Your task to perform on an android device: Go to wifi settings Image 0: 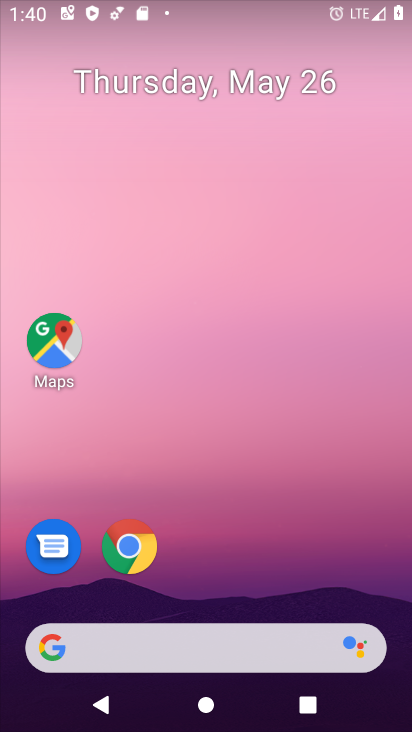
Step 0: drag from (390, 610) to (302, 170)
Your task to perform on an android device: Go to wifi settings Image 1: 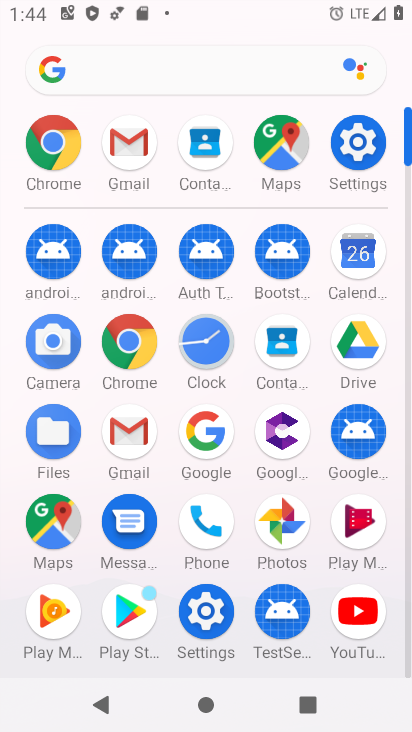
Step 1: click (206, 608)
Your task to perform on an android device: Go to wifi settings Image 2: 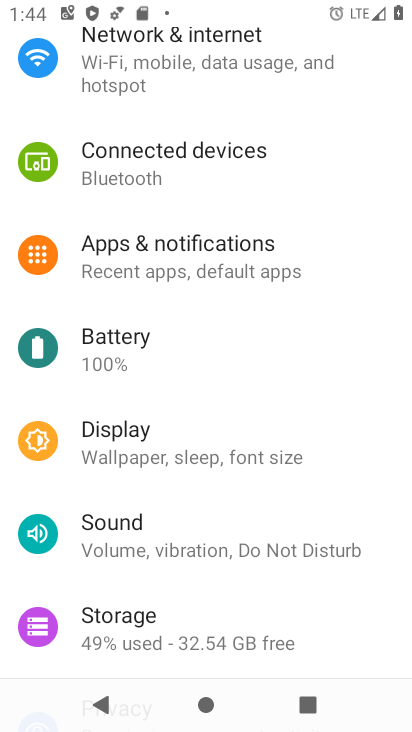
Step 2: drag from (184, 110) to (216, 589)
Your task to perform on an android device: Go to wifi settings Image 3: 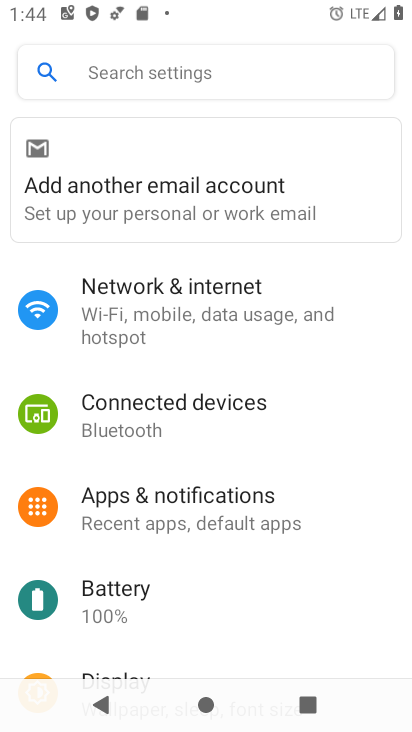
Step 3: click (195, 309)
Your task to perform on an android device: Go to wifi settings Image 4: 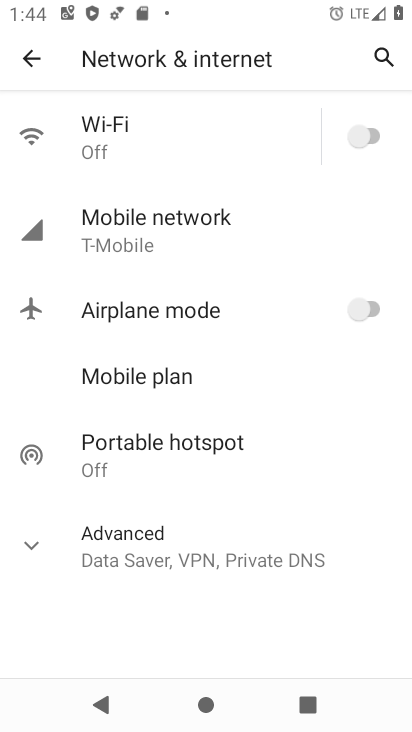
Step 4: click (147, 133)
Your task to perform on an android device: Go to wifi settings Image 5: 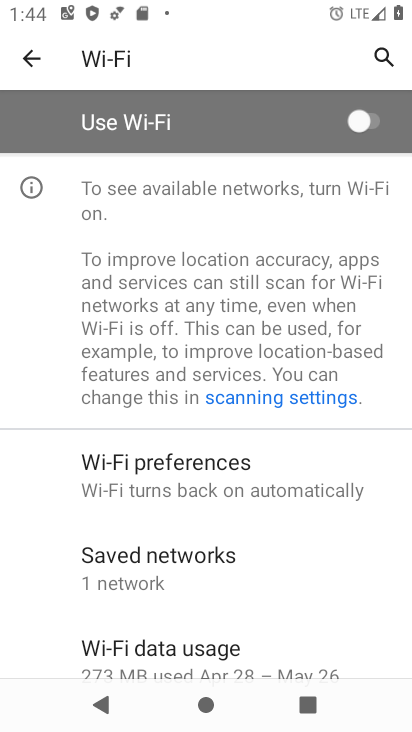
Step 5: task complete